Your task to perform on an android device: set default search engine in the chrome app Image 0: 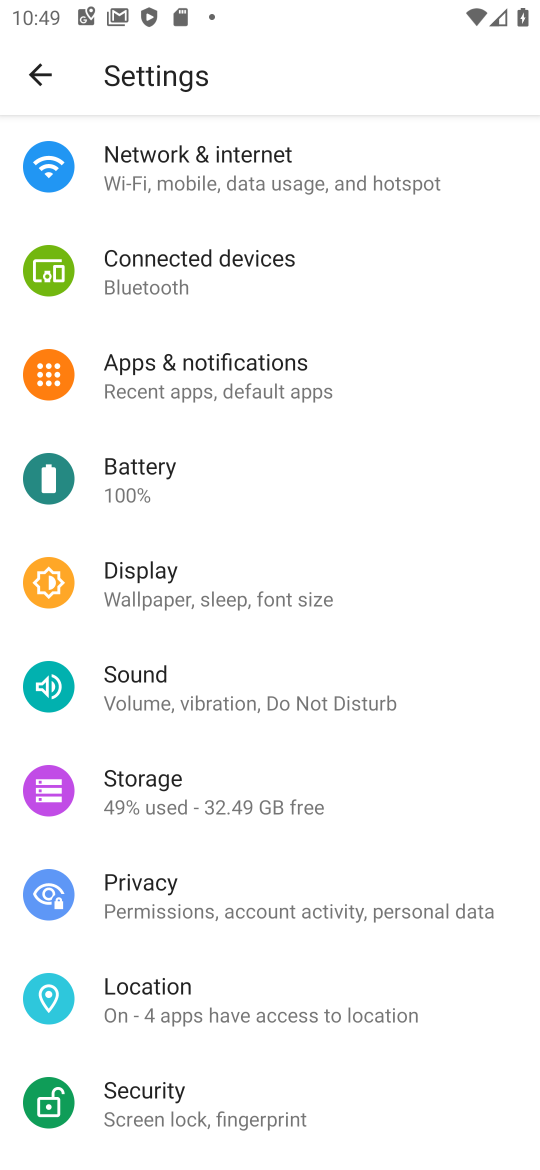
Step 0: press home button
Your task to perform on an android device: set default search engine in the chrome app Image 1: 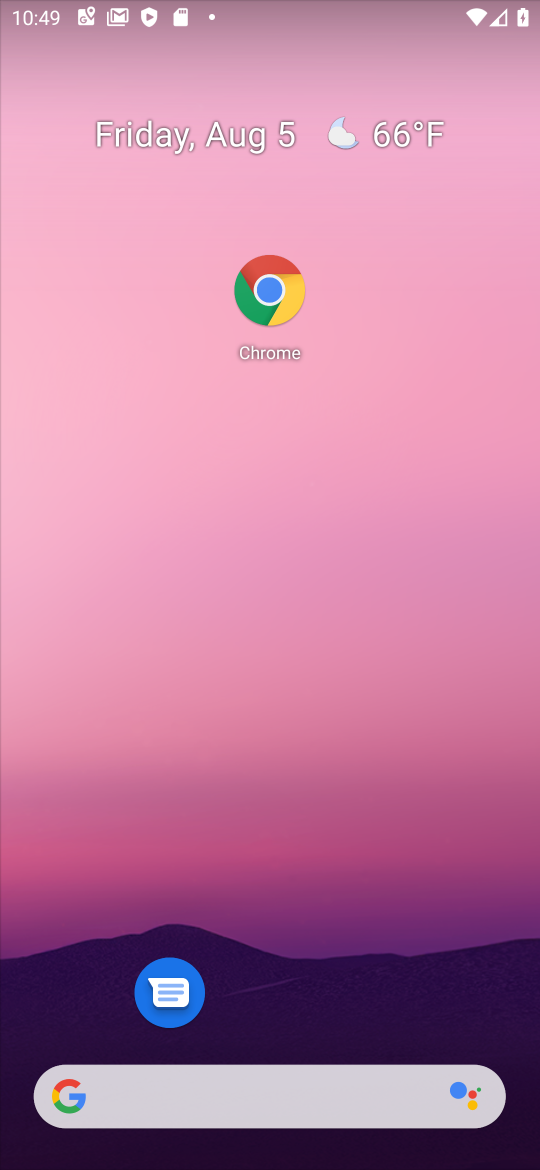
Step 1: drag from (373, 998) to (180, 27)
Your task to perform on an android device: set default search engine in the chrome app Image 2: 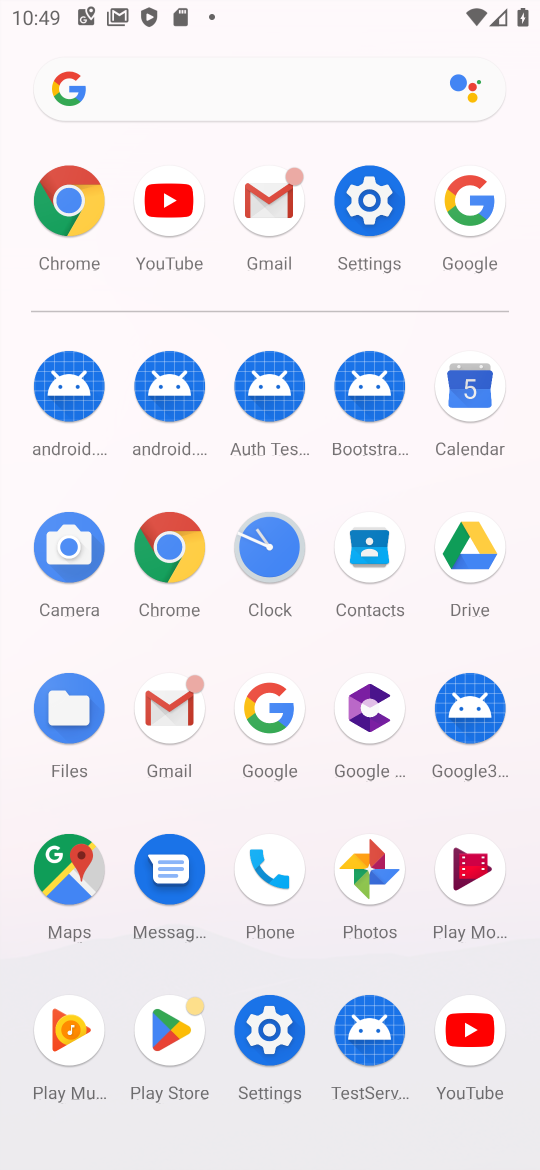
Step 2: click (62, 207)
Your task to perform on an android device: set default search engine in the chrome app Image 3: 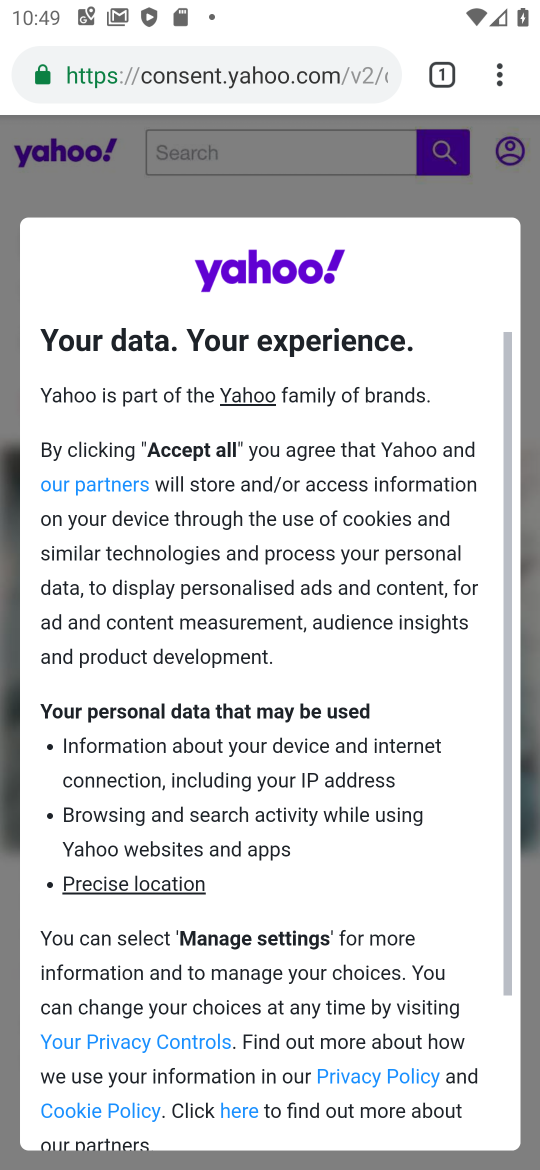
Step 3: drag from (493, 80) to (273, 909)
Your task to perform on an android device: set default search engine in the chrome app Image 4: 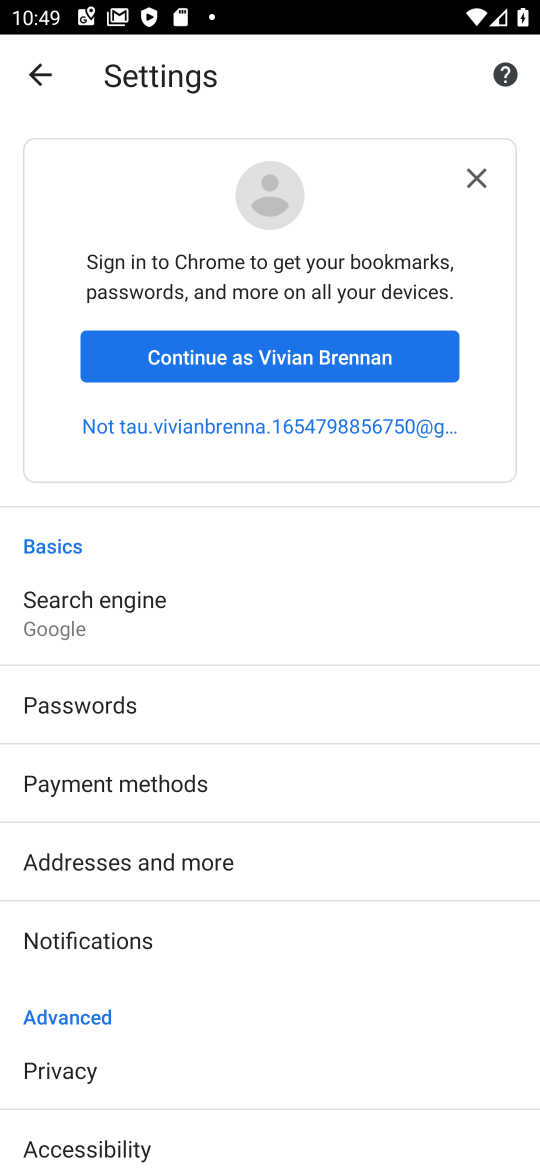
Step 4: click (85, 594)
Your task to perform on an android device: set default search engine in the chrome app Image 5: 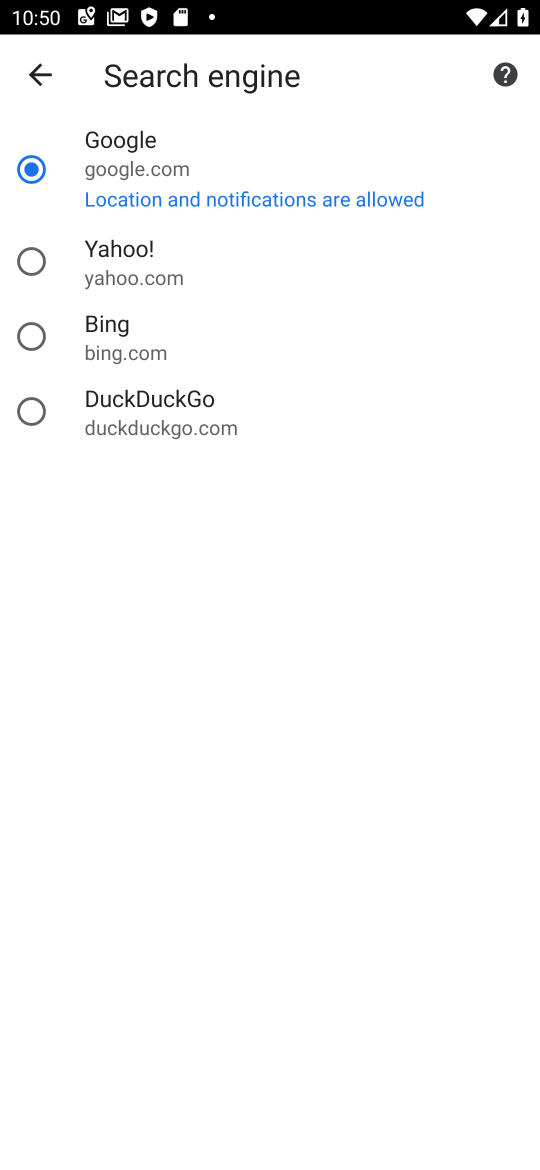
Step 5: task complete